Your task to perform on an android device: turn on the 24-hour format for clock Image 0: 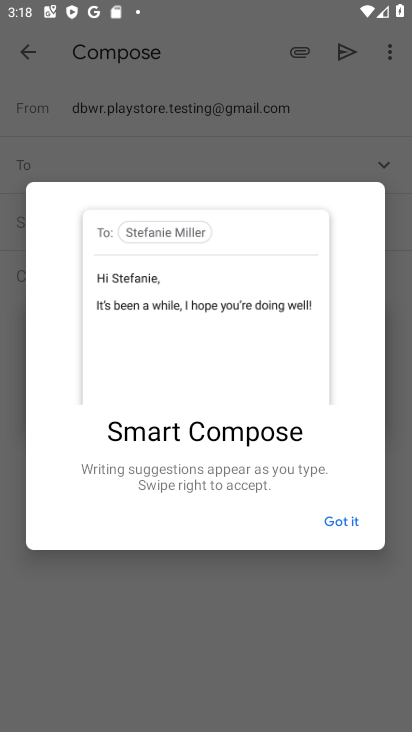
Step 0: press home button
Your task to perform on an android device: turn on the 24-hour format for clock Image 1: 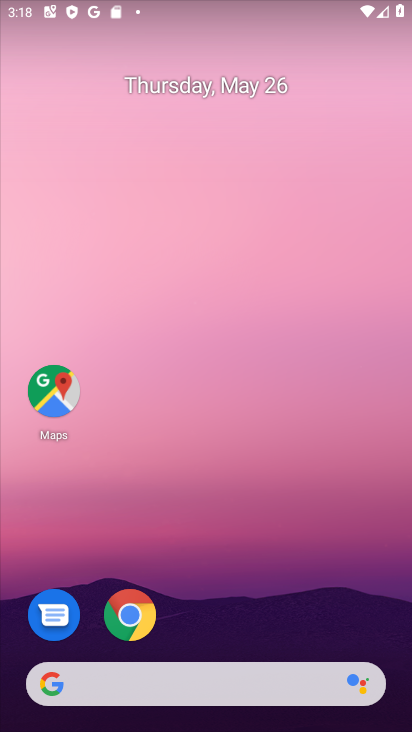
Step 1: drag from (213, 618) to (221, 190)
Your task to perform on an android device: turn on the 24-hour format for clock Image 2: 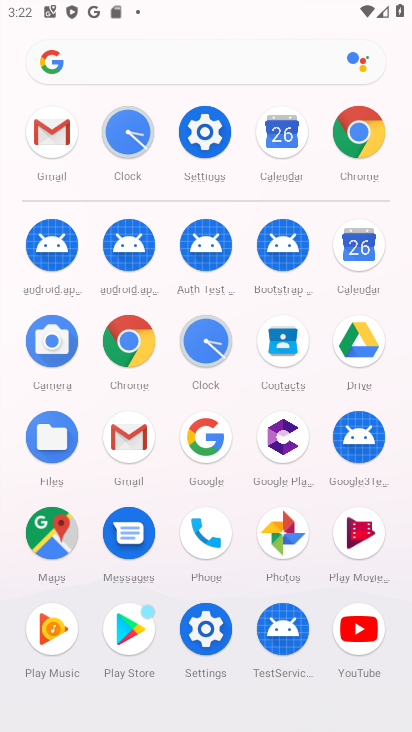
Step 2: drag from (250, 620) to (248, 315)
Your task to perform on an android device: turn on the 24-hour format for clock Image 3: 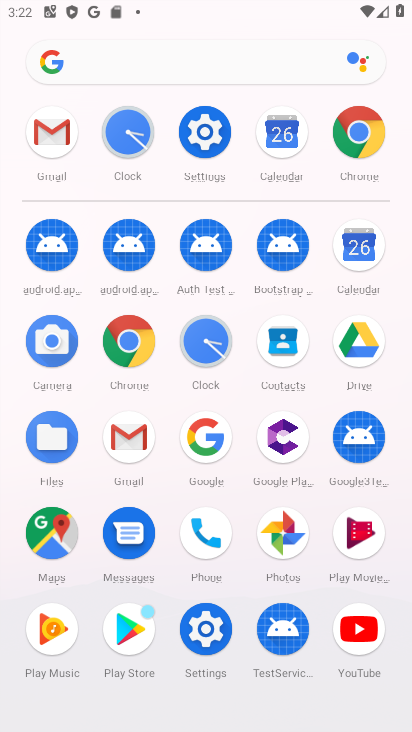
Step 3: click (222, 364)
Your task to perform on an android device: turn on the 24-hour format for clock Image 4: 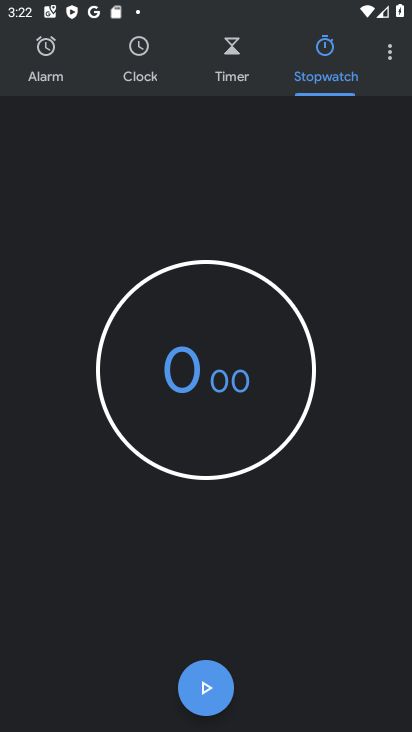
Step 4: click (386, 60)
Your task to perform on an android device: turn on the 24-hour format for clock Image 5: 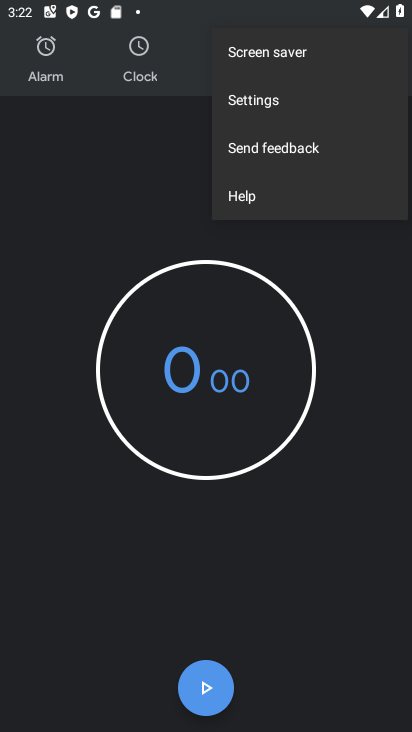
Step 5: click (236, 104)
Your task to perform on an android device: turn on the 24-hour format for clock Image 6: 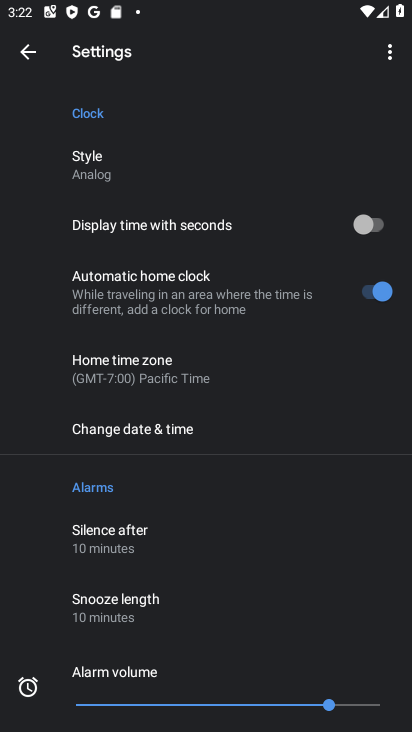
Step 6: click (123, 430)
Your task to perform on an android device: turn on the 24-hour format for clock Image 7: 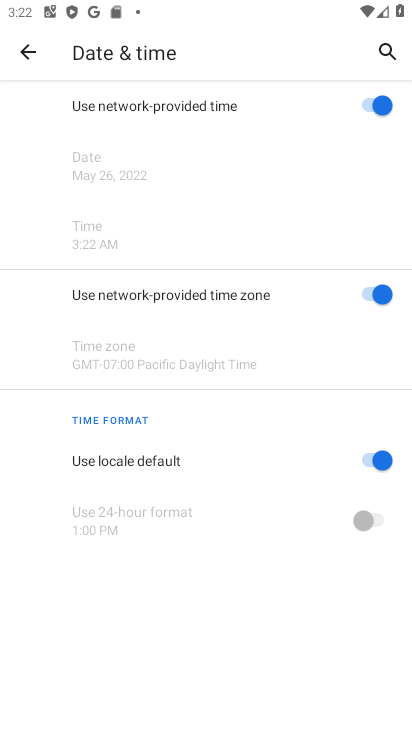
Step 7: click (356, 462)
Your task to perform on an android device: turn on the 24-hour format for clock Image 8: 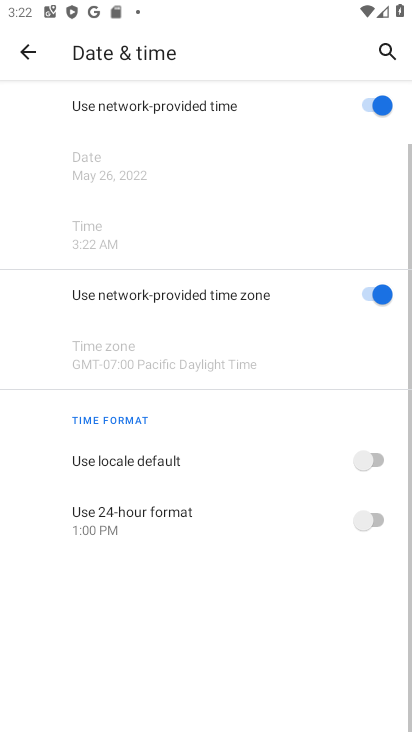
Step 8: click (386, 526)
Your task to perform on an android device: turn on the 24-hour format for clock Image 9: 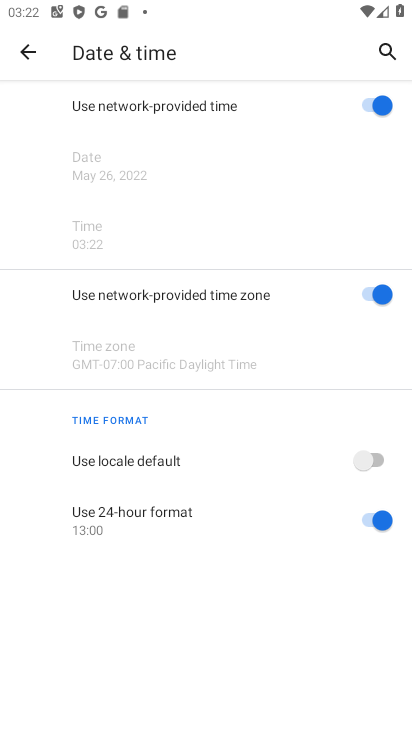
Step 9: task complete